Your task to perform on an android device: toggle priority inbox in the gmail app Image 0: 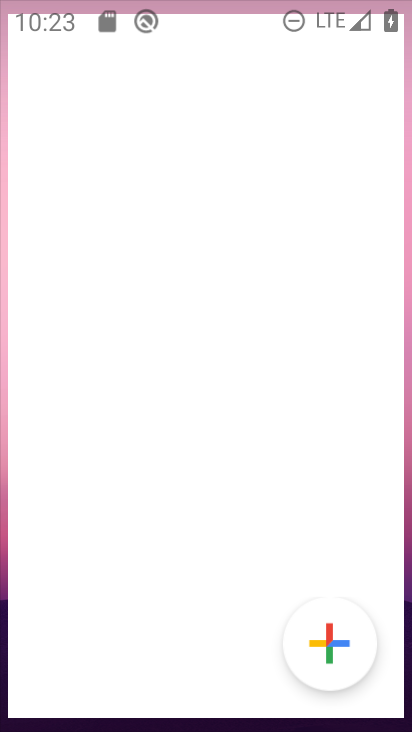
Step 0: drag from (227, 562) to (400, 223)
Your task to perform on an android device: toggle priority inbox in the gmail app Image 1: 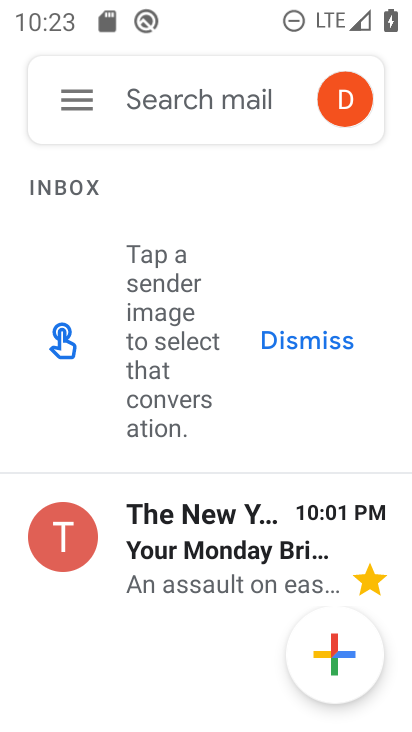
Step 1: press home button
Your task to perform on an android device: toggle priority inbox in the gmail app Image 2: 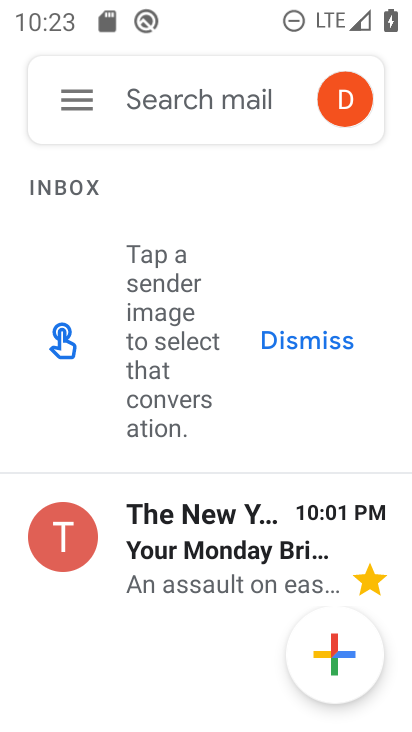
Step 2: drag from (400, 223) to (398, 482)
Your task to perform on an android device: toggle priority inbox in the gmail app Image 3: 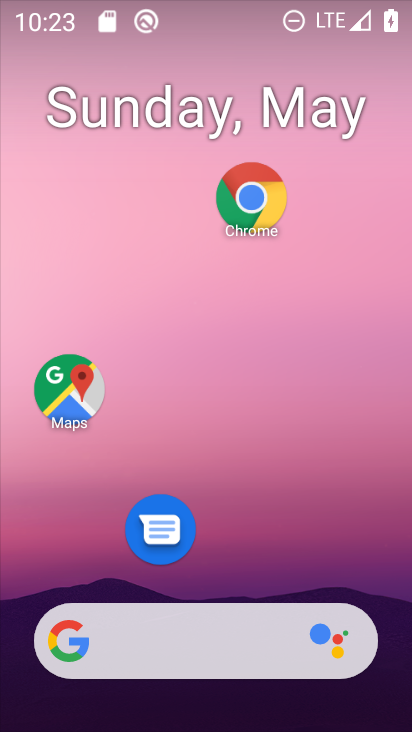
Step 3: drag from (284, 530) to (283, 70)
Your task to perform on an android device: toggle priority inbox in the gmail app Image 4: 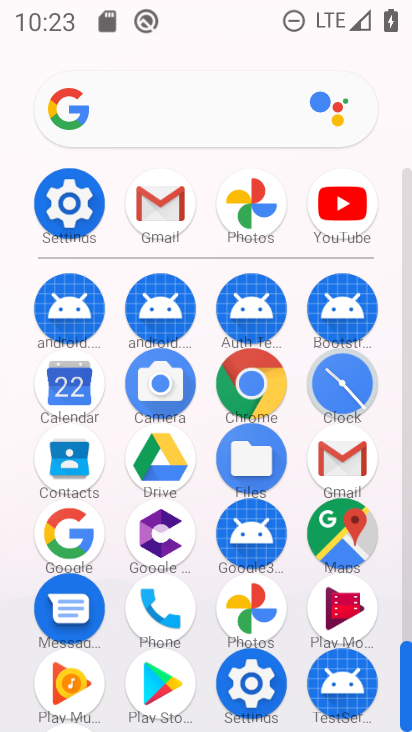
Step 4: click (351, 465)
Your task to perform on an android device: toggle priority inbox in the gmail app Image 5: 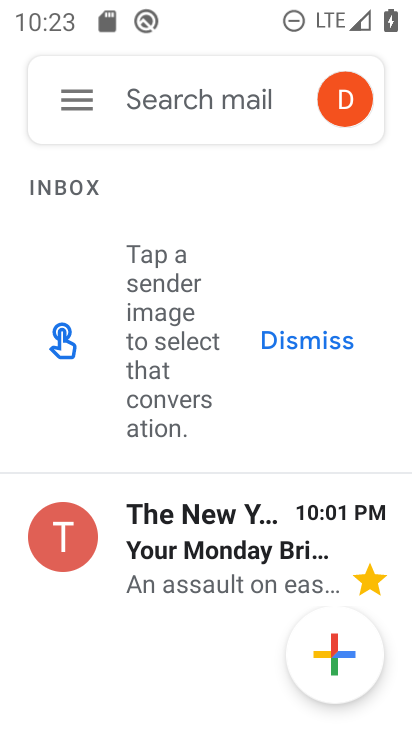
Step 5: click (63, 97)
Your task to perform on an android device: toggle priority inbox in the gmail app Image 6: 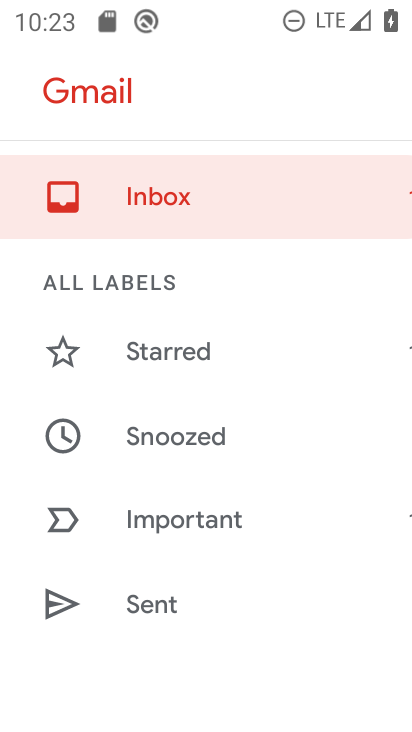
Step 6: drag from (179, 634) to (186, 312)
Your task to perform on an android device: toggle priority inbox in the gmail app Image 7: 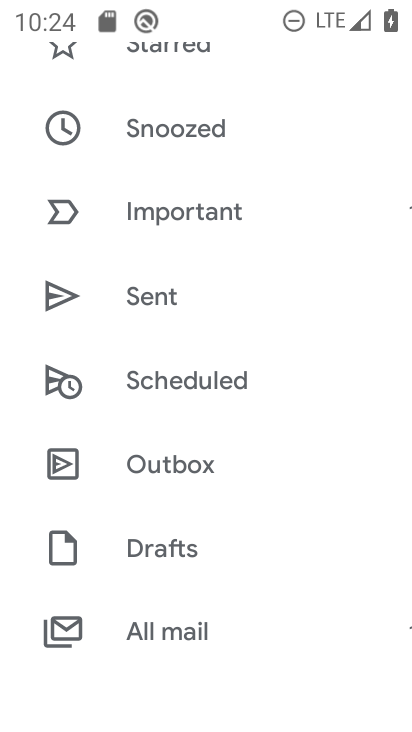
Step 7: drag from (222, 598) to (240, 332)
Your task to perform on an android device: toggle priority inbox in the gmail app Image 8: 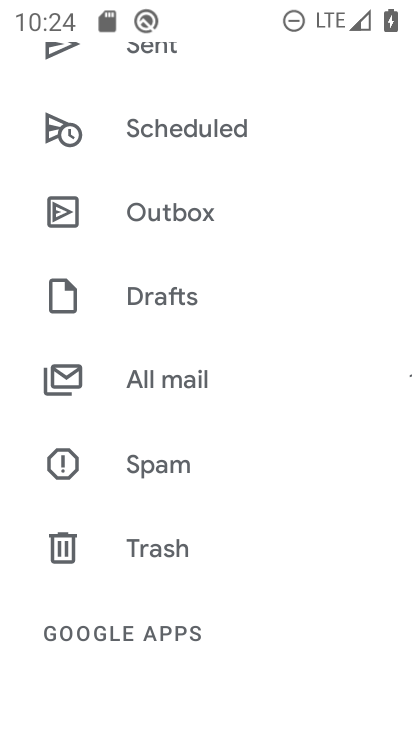
Step 8: drag from (197, 632) to (247, 346)
Your task to perform on an android device: toggle priority inbox in the gmail app Image 9: 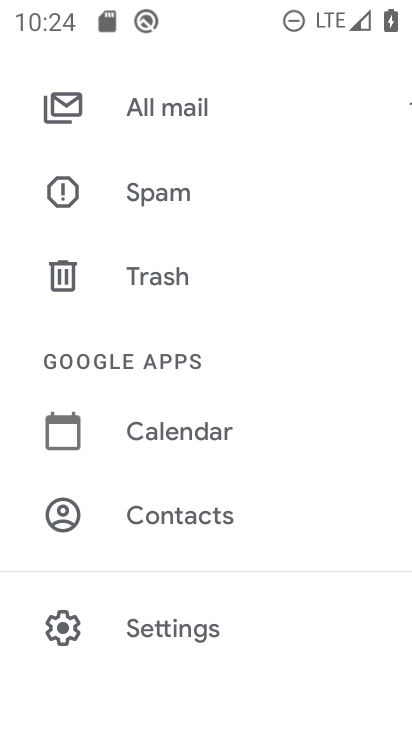
Step 9: click (173, 620)
Your task to perform on an android device: toggle priority inbox in the gmail app Image 10: 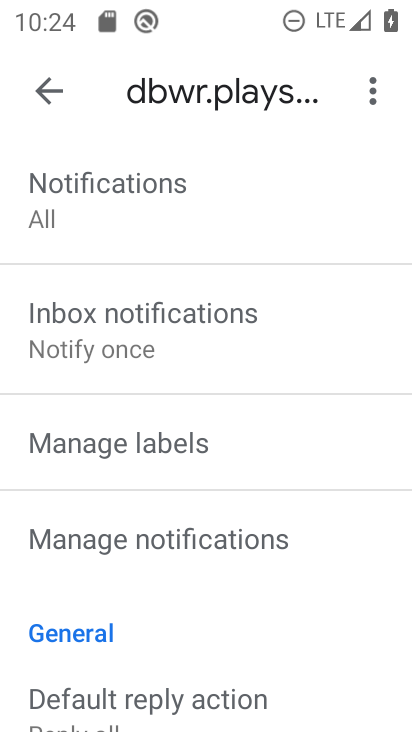
Step 10: drag from (171, 647) to (206, 489)
Your task to perform on an android device: toggle priority inbox in the gmail app Image 11: 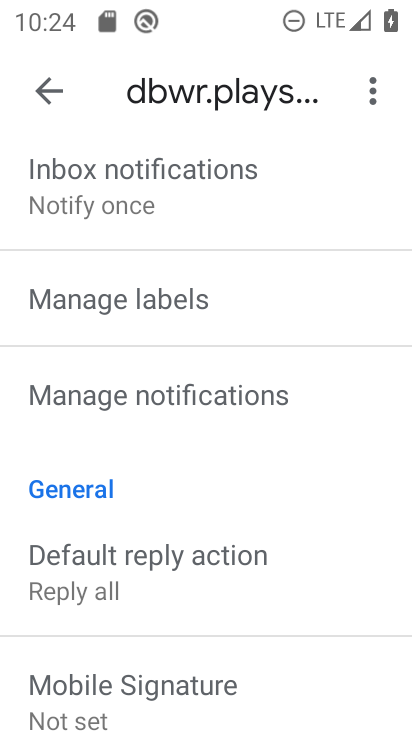
Step 11: drag from (191, 618) to (243, 422)
Your task to perform on an android device: toggle priority inbox in the gmail app Image 12: 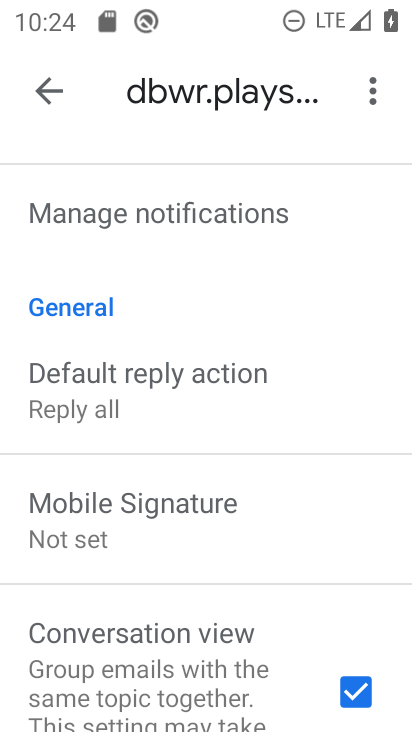
Step 12: drag from (272, 361) to (282, 729)
Your task to perform on an android device: toggle priority inbox in the gmail app Image 13: 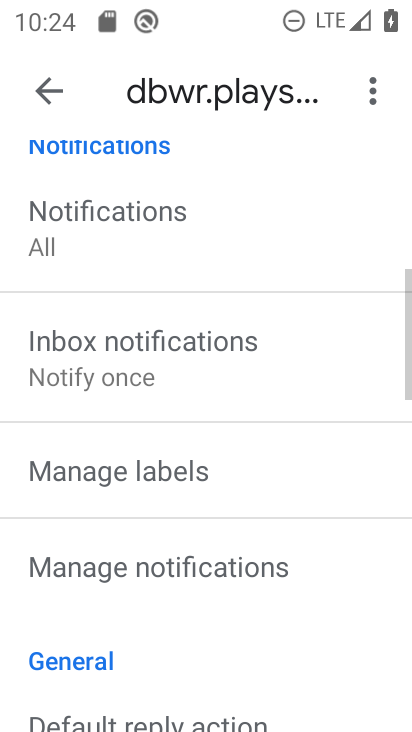
Step 13: drag from (305, 274) to (283, 725)
Your task to perform on an android device: toggle priority inbox in the gmail app Image 14: 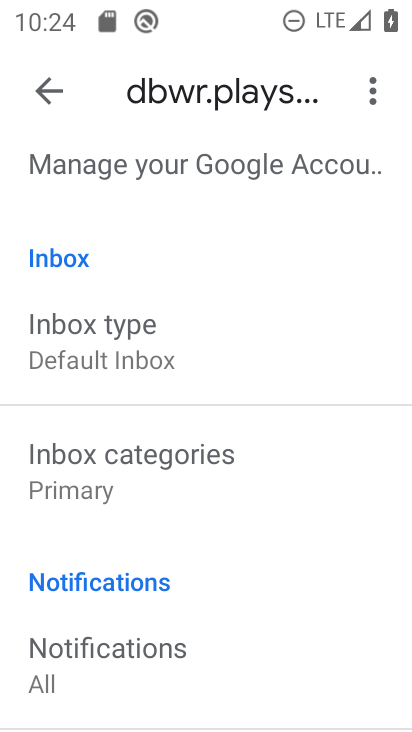
Step 14: click (165, 338)
Your task to perform on an android device: toggle priority inbox in the gmail app Image 15: 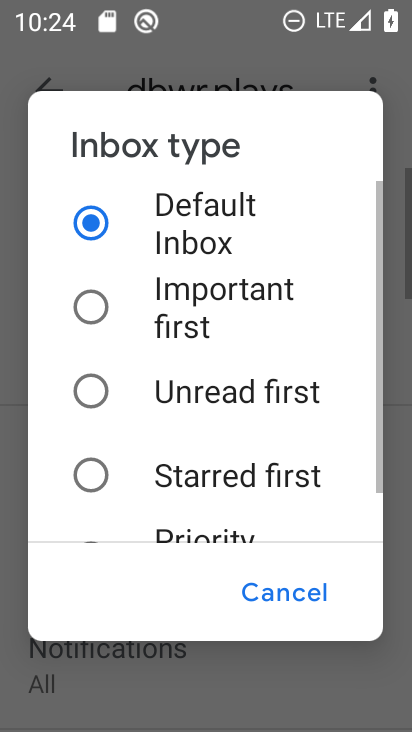
Step 15: drag from (173, 501) to (203, 227)
Your task to perform on an android device: toggle priority inbox in the gmail app Image 16: 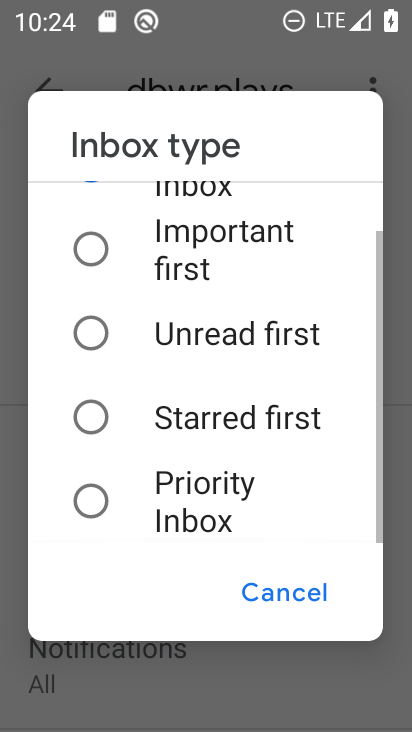
Step 16: click (189, 503)
Your task to perform on an android device: toggle priority inbox in the gmail app Image 17: 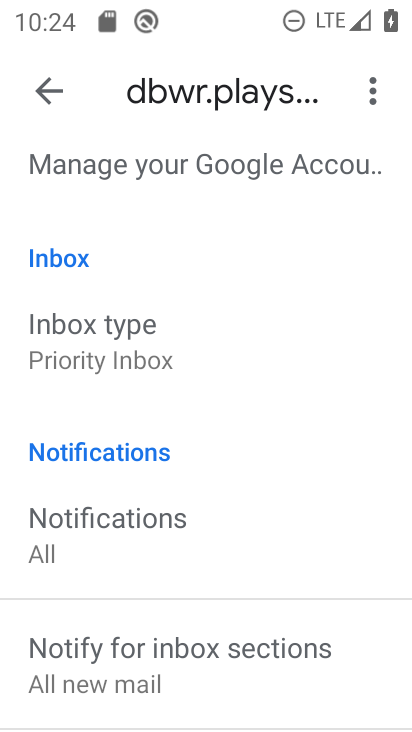
Step 17: task complete